Your task to perform on an android device: Go to location settings Image 0: 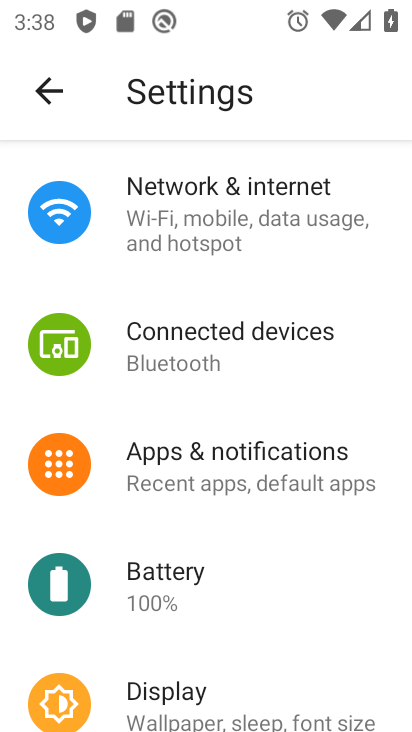
Step 0: drag from (334, 658) to (370, 224)
Your task to perform on an android device: Go to location settings Image 1: 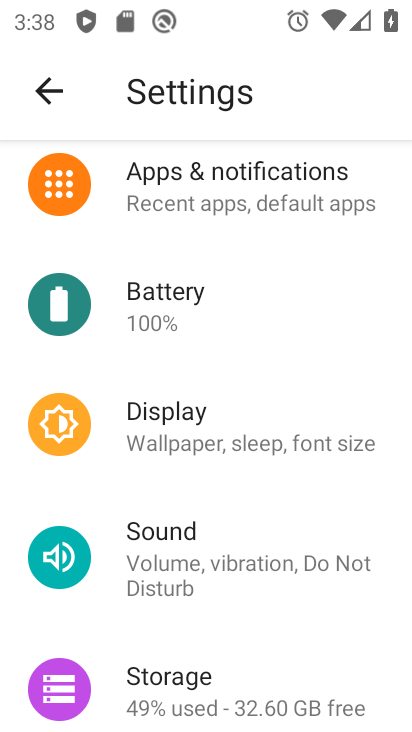
Step 1: drag from (225, 675) to (269, 289)
Your task to perform on an android device: Go to location settings Image 2: 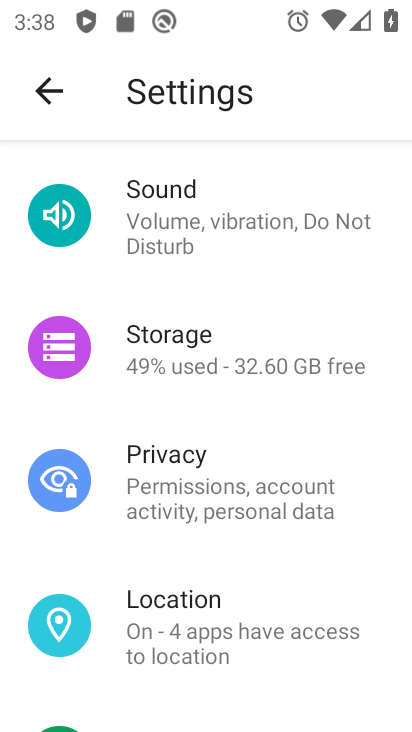
Step 2: click (198, 610)
Your task to perform on an android device: Go to location settings Image 3: 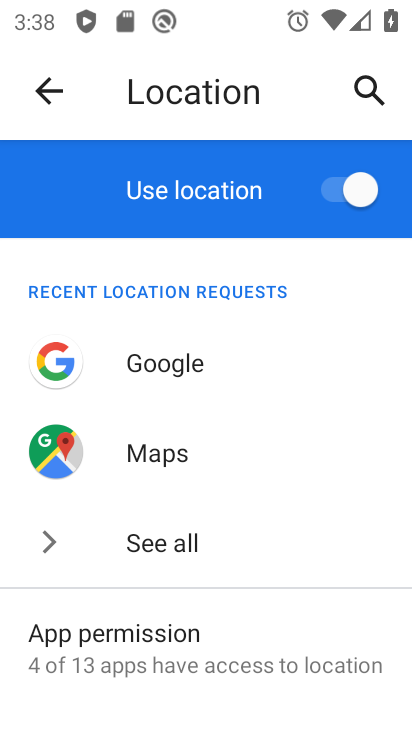
Step 3: task complete